Your task to perform on an android device: uninstall "Paramount+ | Peak Streaming" Image 0: 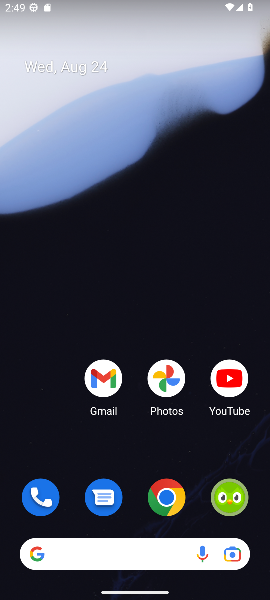
Step 0: drag from (156, 553) to (183, 81)
Your task to perform on an android device: uninstall "Paramount+ | Peak Streaming" Image 1: 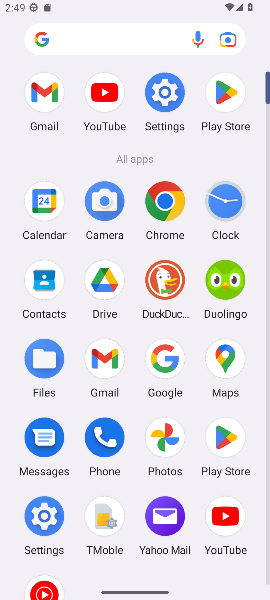
Step 1: click (224, 96)
Your task to perform on an android device: uninstall "Paramount+ | Peak Streaming" Image 2: 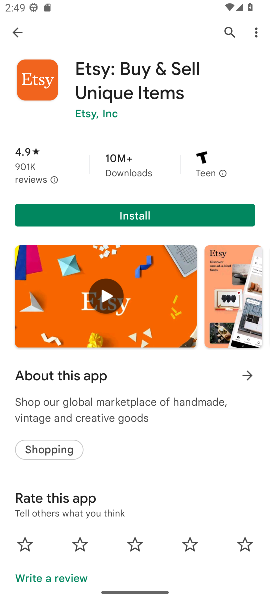
Step 2: press back button
Your task to perform on an android device: uninstall "Paramount+ | Peak Streaming" Image 3: 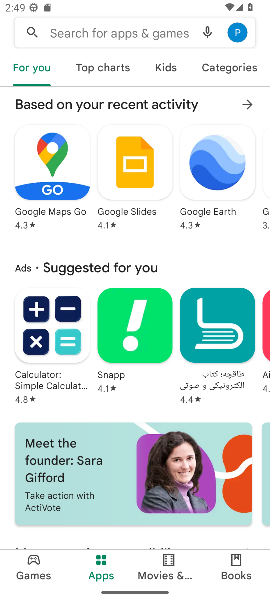
Step 3: click (165, 35)
Your task to perform on an android device: uninstall "Paramount+ | Peak Streaming" Image 4: 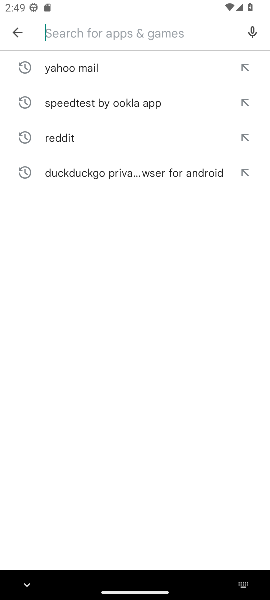
Step 4: type "Paramount+ | Peak Streaming"
Your task to perform on an android device: uninstall "Paramount+ | Peak Streaming" Image 5: 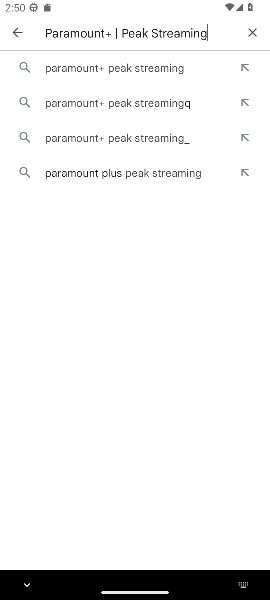
Step 5: click (159, 71)
Your task to perform on an android device: uninstall "Paramount+ | Peak Streaming" Image 6: 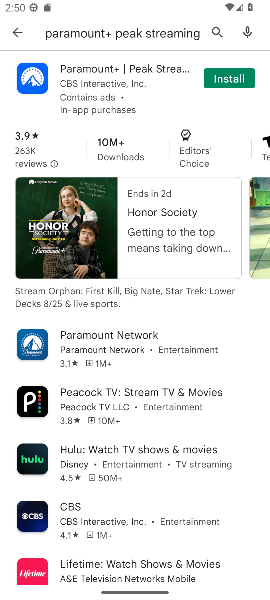
Step 6: task complete